Your task to perform on an android device: see tabs open on other devices in the chrome app Image 0: 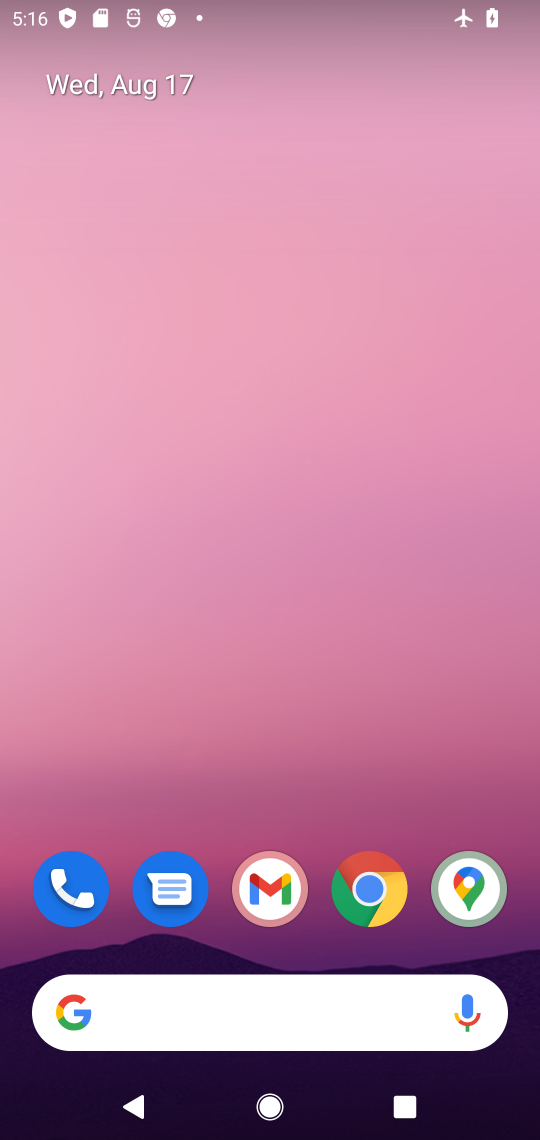
Step 0: click (375, 888)
Your task to perform on an android device: see tabs open on other devices in the chrome app Image 1: 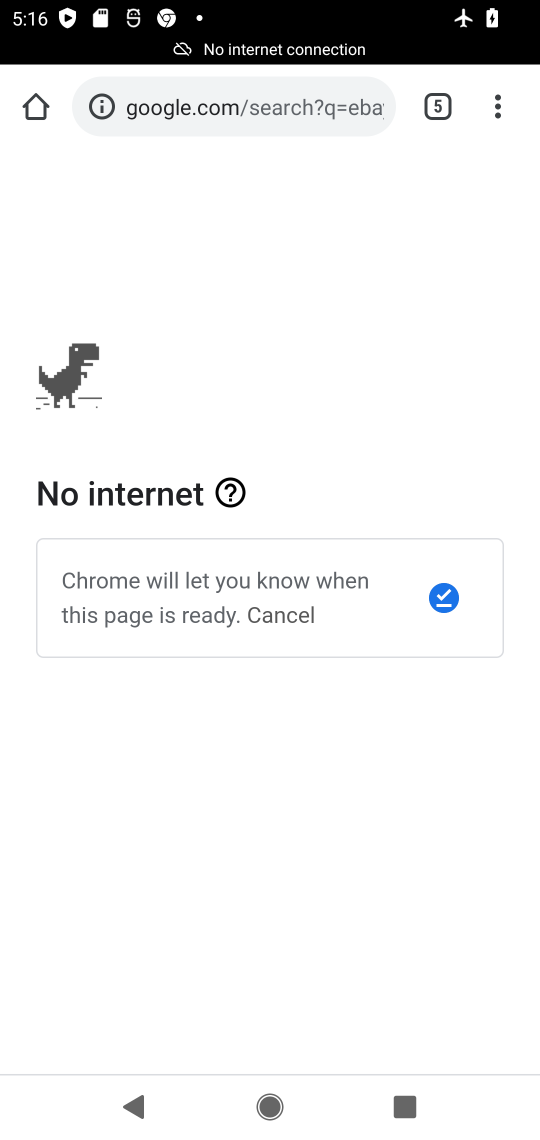
Step 1: click (503, 92)
Your task to perform on an android device: see tabs open on other devices in the chrome app Image 2: 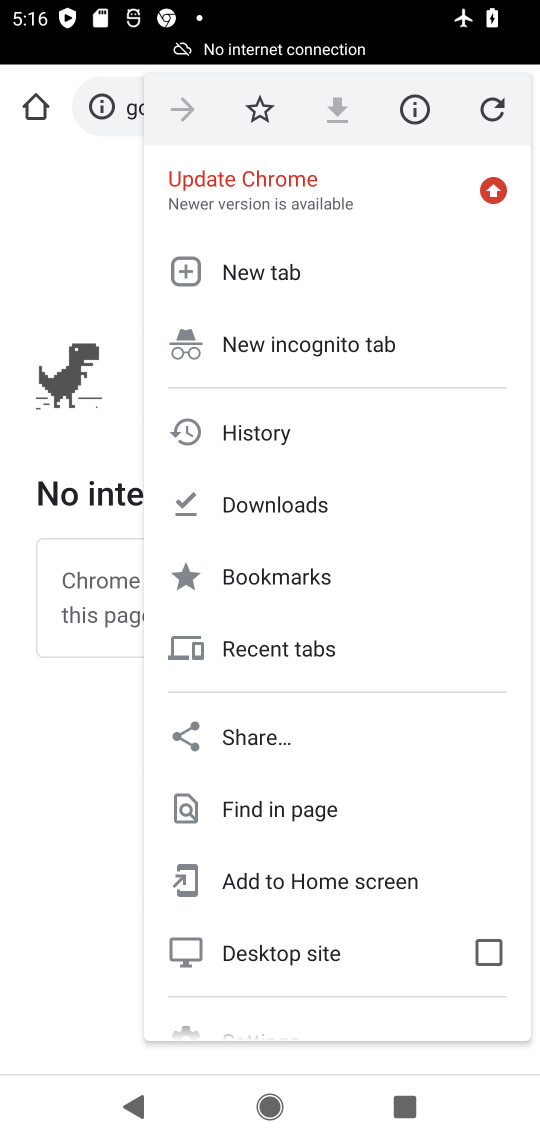
Step 2: click (275, 640)
Your task to perform on an android device: see tabs open on other devices in the chrome app Image 3: 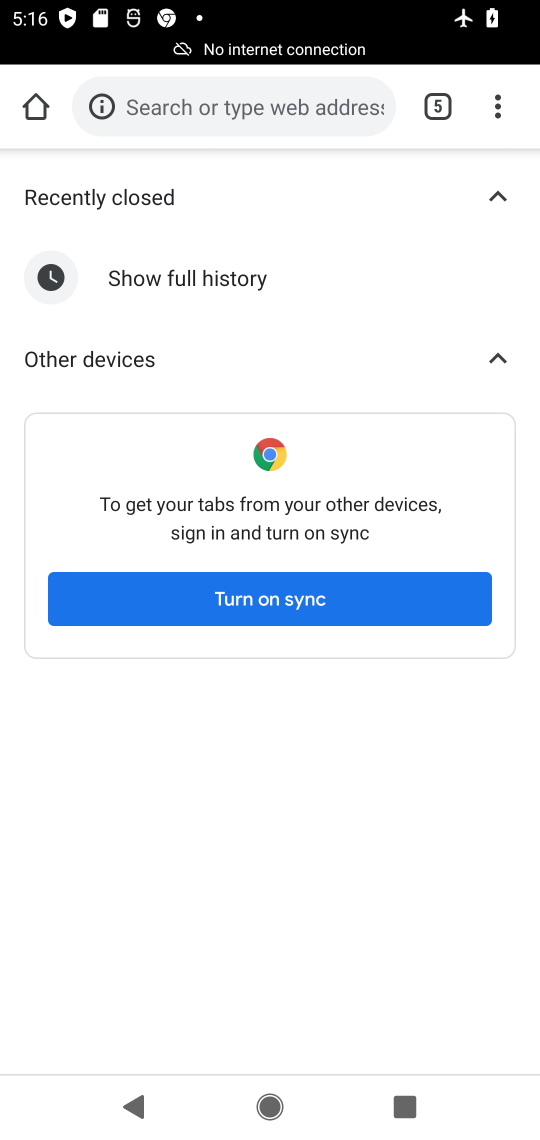
Step 3: task complete